Your task to perform on an android device: turn off location history Image 0: 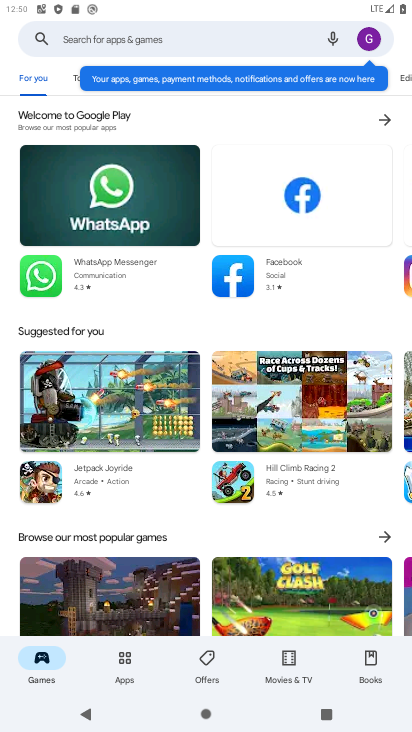
Step 0: press home button
Your task to perform on an android device: turn off location history Image 1: 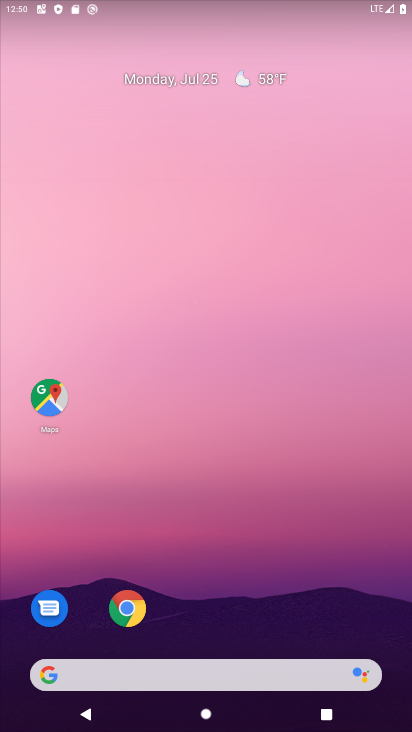
Step 1: drag from (186, 668) to (209, 98)
Your task to perform on an android device: turn off location history Image 2: 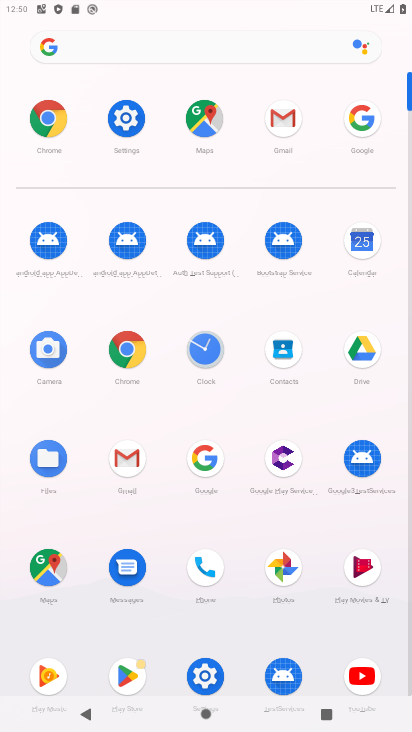
Step 2: click (206, 674)
Your task to perform on an android device: turn off location history Image 3: 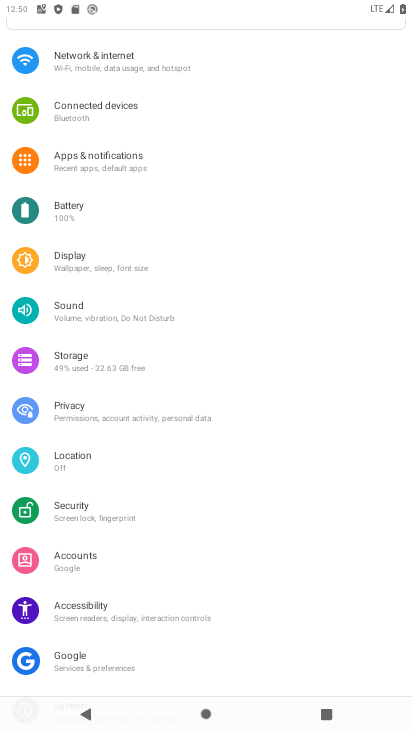
Step 3: click (74, 460)
Your task to perform on an android device: turn off location history Image 4: 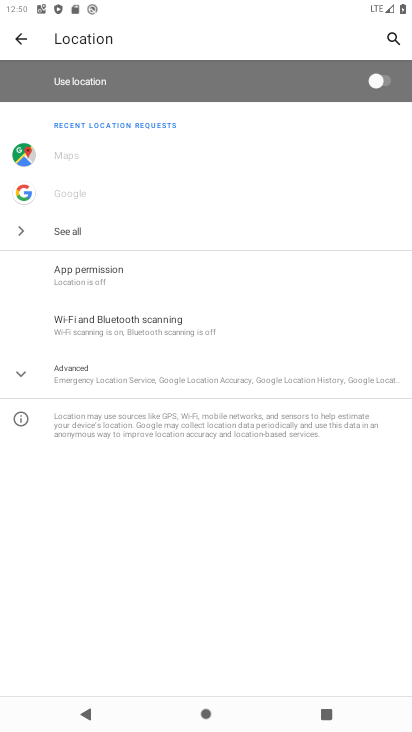
Step 4: click (140, 379)
Your task to perform on an android device: turn off location history Image 5: 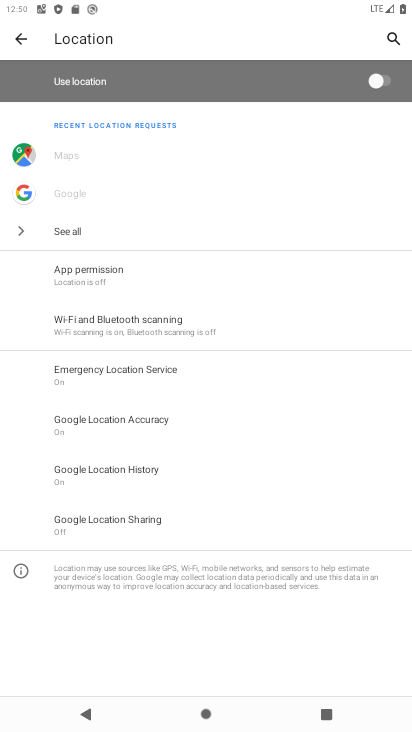
Step 5: click (122, 471)
Your task to perform on an android device: turn off location history Image 6: 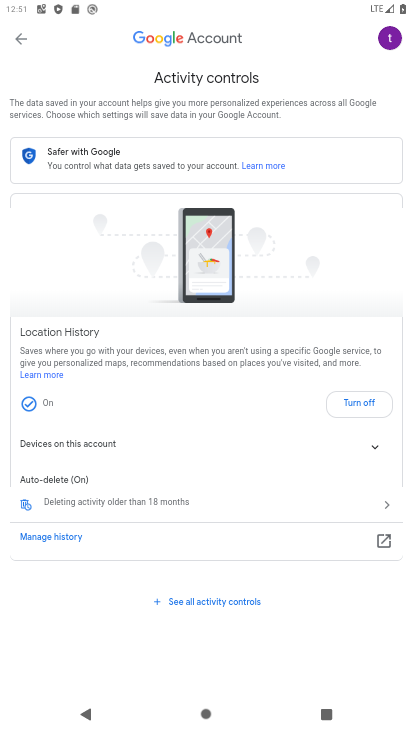
Step 6: click (355, 405)
Your task to perform on an android device: turn off location history Image 7: 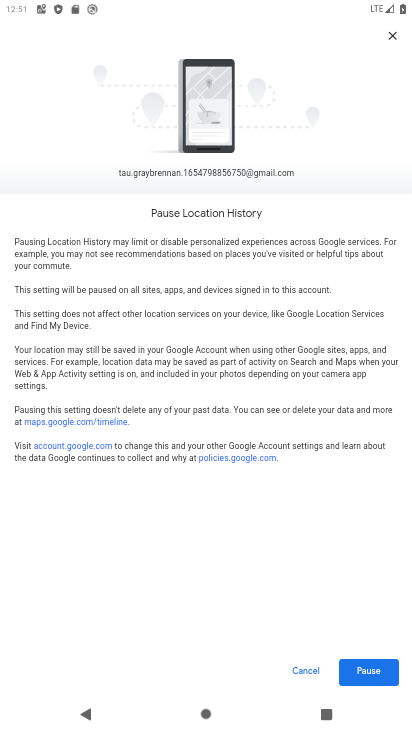
Step 7: click (362, 675)
Your task to perform on an android device: turn off location history Image 8: 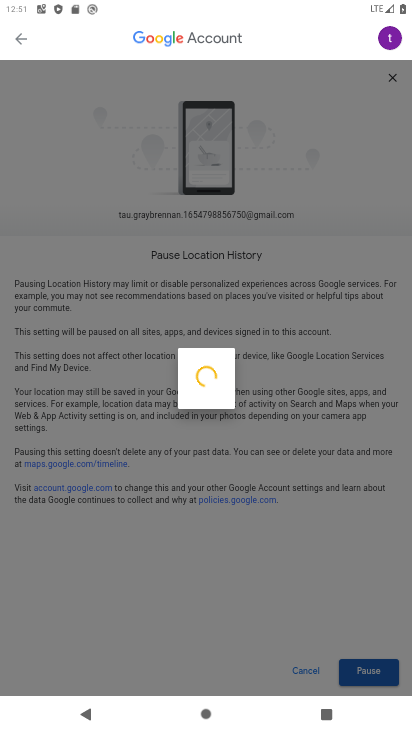
Step 8: click (362, 675)
Your task to perform on an android device: turn off location history Image 9: 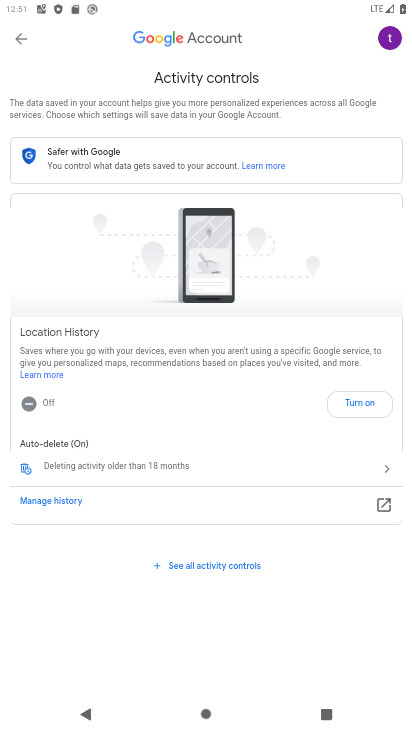
Step 9: task complete